Your task to perform on an android device: turn on notifications settings in the gmail app Image 0: 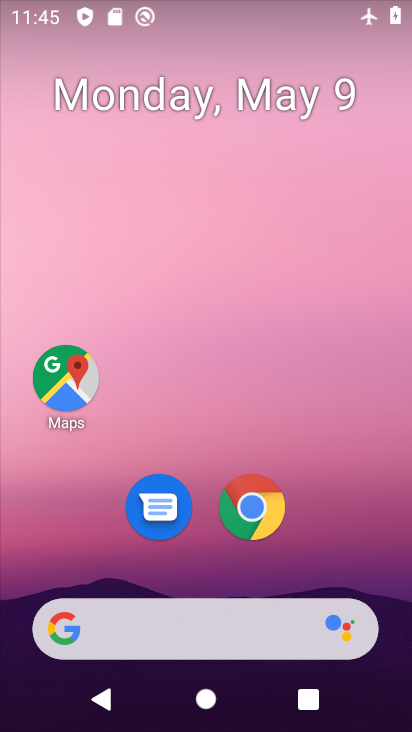
Step 0: drag from (331, 551) to (272, 91)
Your task to perform on an android device: turn on notifications settings in the gmail app Image 1: 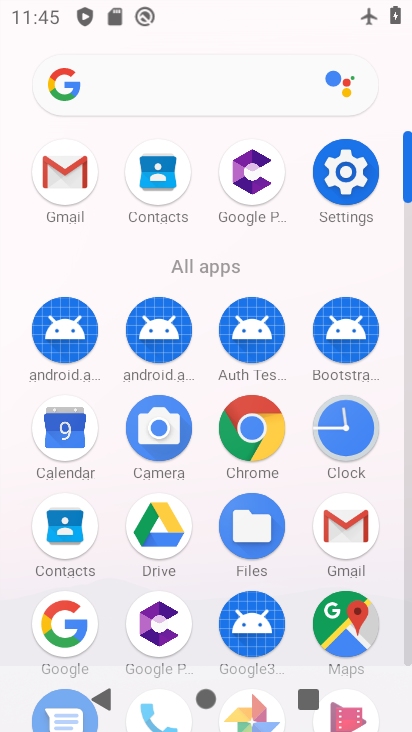
Step 1: drag from (189, 294) to (181, 178)
Your task to perform on an android device: turn on notifications settings in the gmail app Image 2: 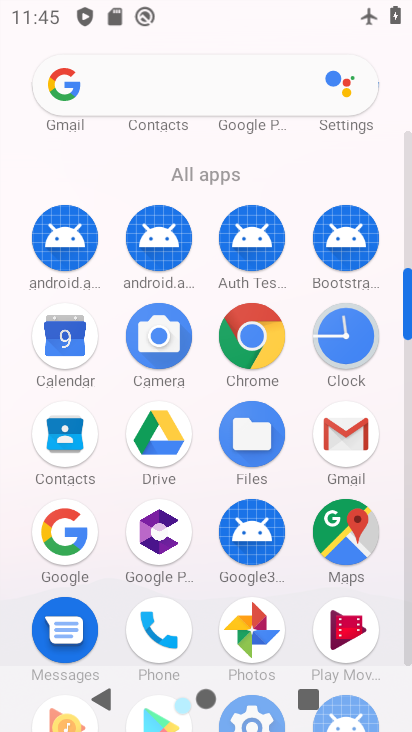
Step 2: click (329, 421)
Your task to perform on an android device: turn on notifications settings in the gmail app Image 3: 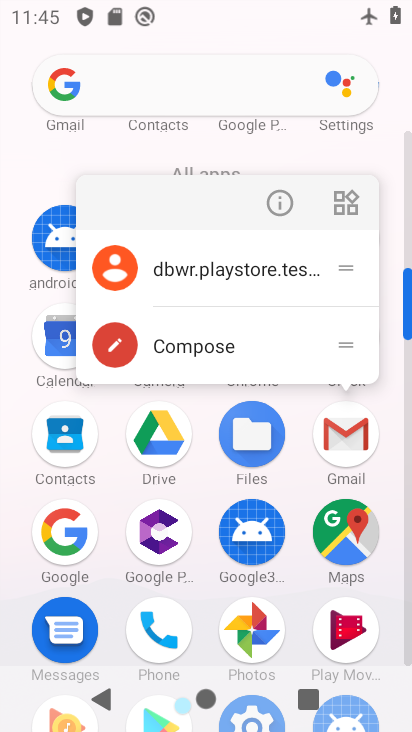
Step 3: click (267, 190)
Your task to perform on an android device: turn on notifications settings in the gmail app Image 4: 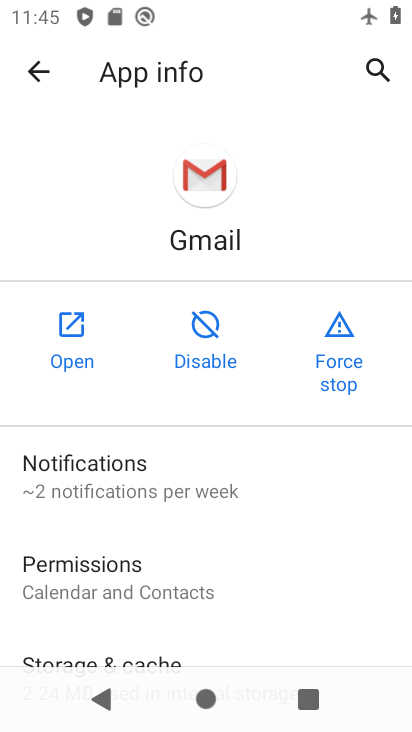
Step 4: drag from (213, 525) to (201, 326)
Your task to perform on an android device: turn on notifications settings in the gmail app Image 5: 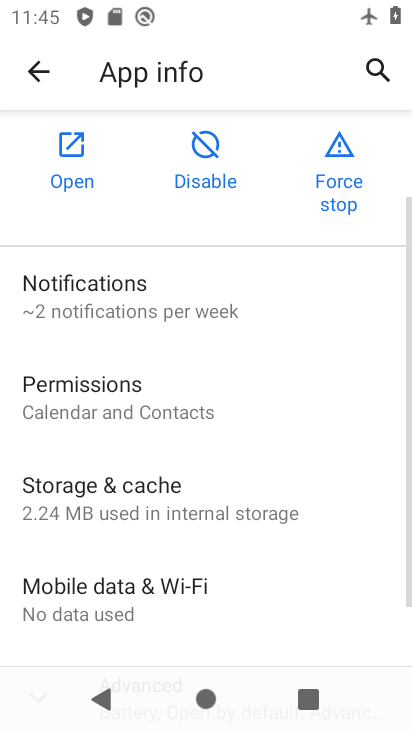
Step 5: click (196, 296)
Your task to perform on an android device: turn on notifications settings in the gmail app Image 6: 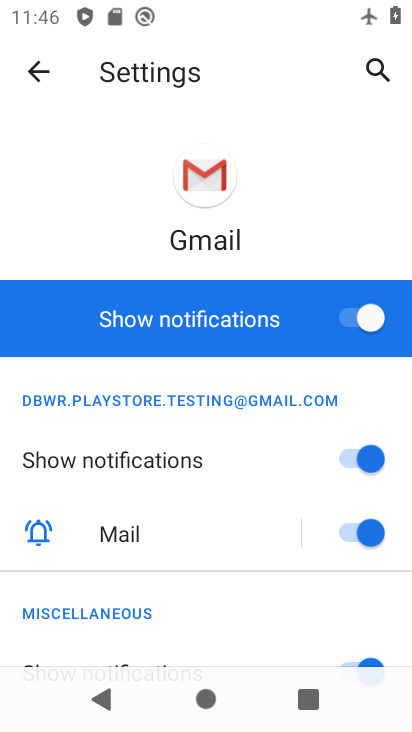
Step 6: click (339, 303)
Your task to perform on an android device: turn on notifications settings in the gmail app Image 7: 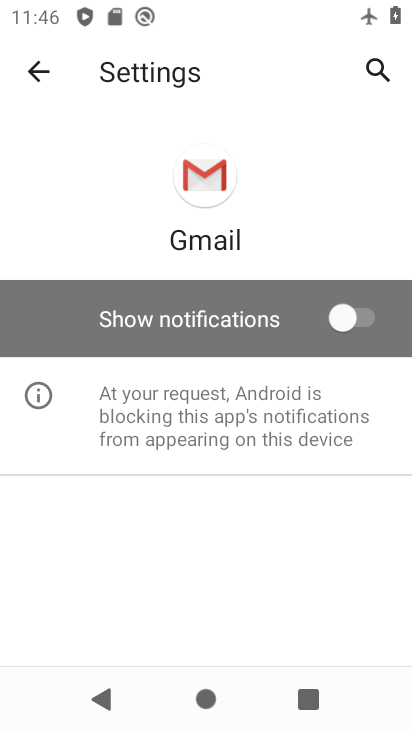
Step 7: task complete